Your task to perform on an android device: Open Chrome and go to the settings page Image 0: 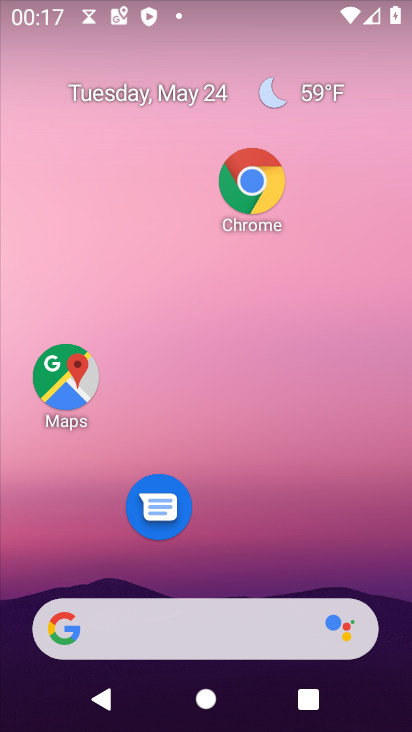
Step 0: drag from (264, 511) to (280, 301)
Your task to perform on an android device: Open Chrome and go to the settings page Image 1: 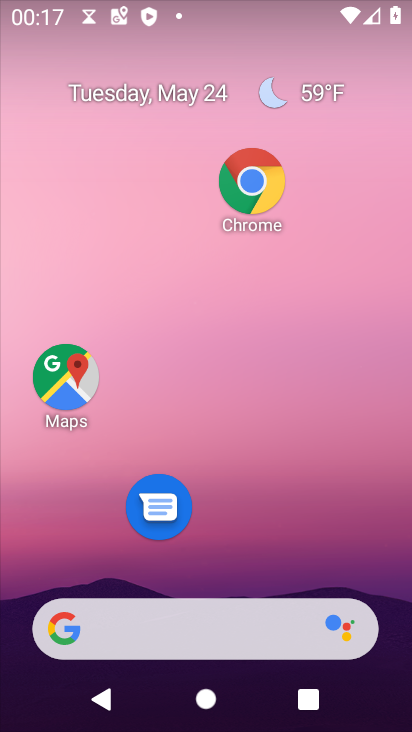
Step 1: click (243, 173)
Your task to perform on an android device: Open Chrome and go to the settings page Image 2: 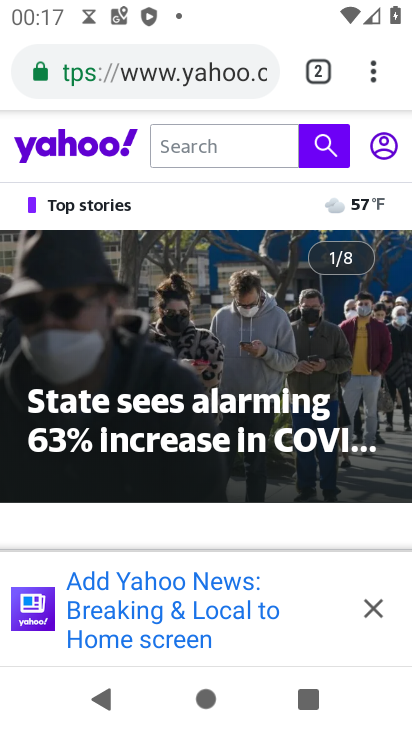
Step 2: click (371, 51)
Your task to perform on an android device: Open Chrome and go to the settings page Image 3: 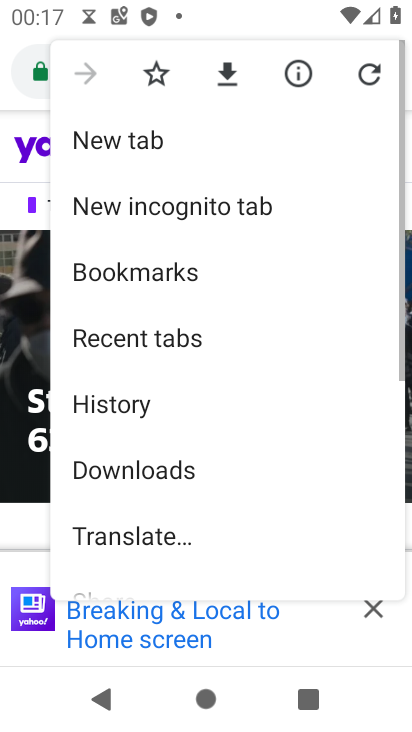
Step 3: drag from (200, 439) to (236, 162)
Your task to perform on an android device: Open Chrome and go to the settings page Image 4: 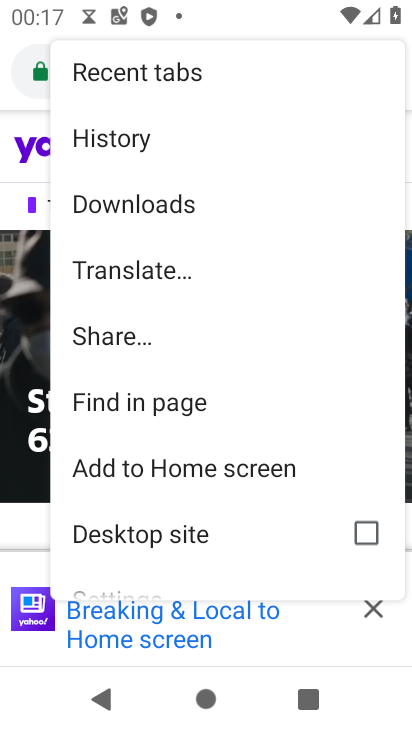
Step 4: drag from (192, 530) to (222, 130)
Your task to perform on an android device: Open Chrome and go to the settings page Image 5: 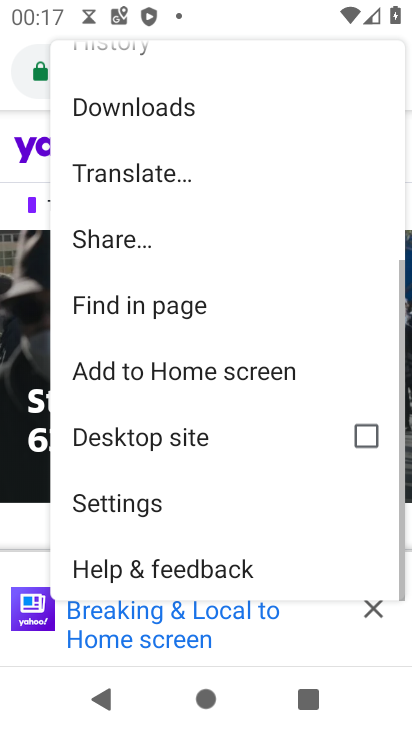
Step 5: click (169, 504)
Your task to perform on an android device: Open Chrome and go to the settings page Image 6: 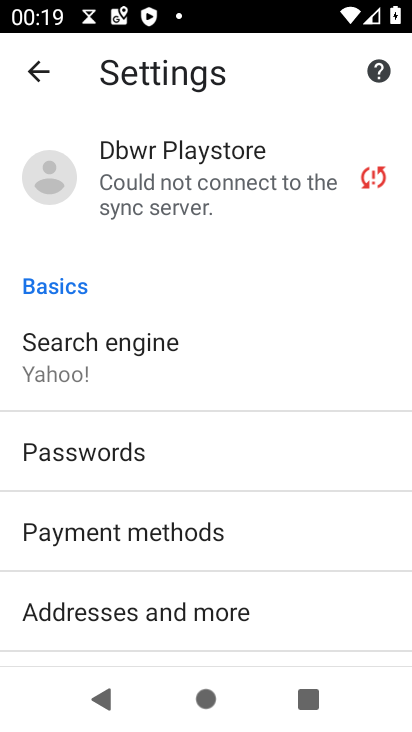
Step 6: task complete